Your task to perform on an android device: see sites visited before in the chrome app Image 0: 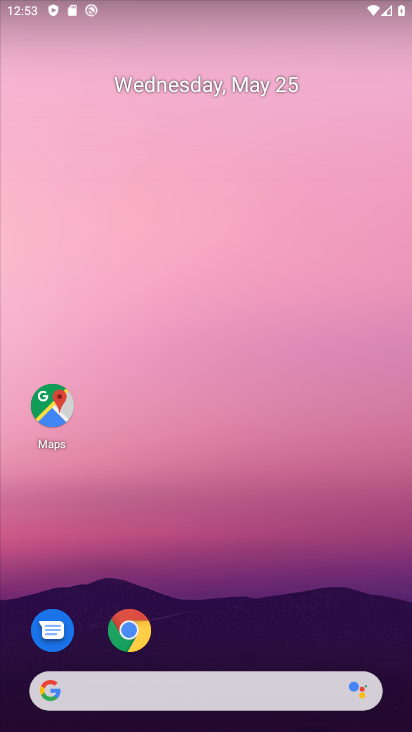
Step 0: click (117, 628)
Your task to perform on an android device: see sites visited before in the chrome app Image 1: 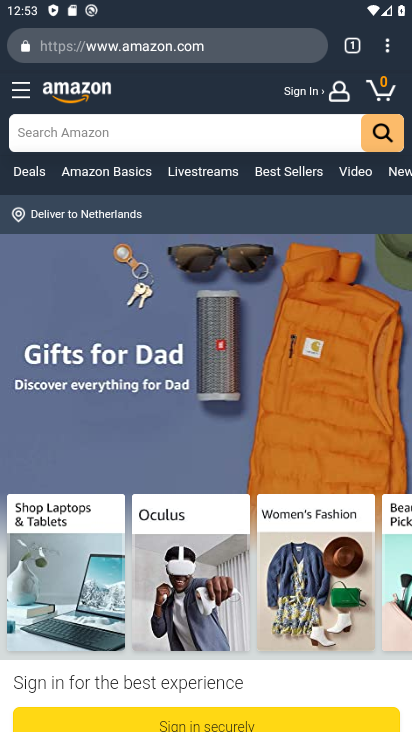
Step 1: click (390, 41)
Your task to perform on an android device: see sites visited before in the chrome app Image 2: 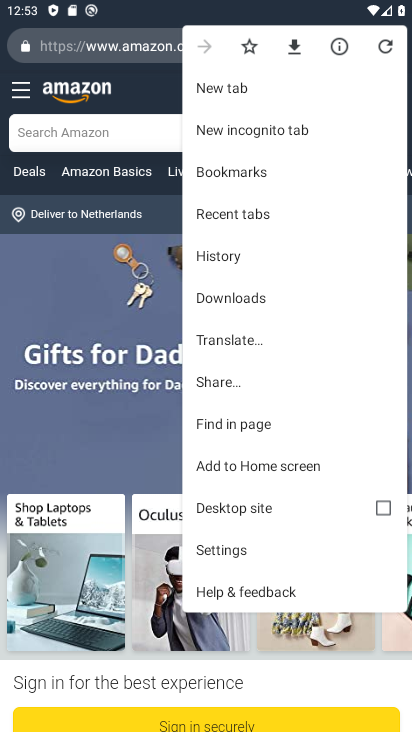
Step 2: click (241, 255)
Your task to perform on an android device: see sites visited before in the chrome app Image 3: 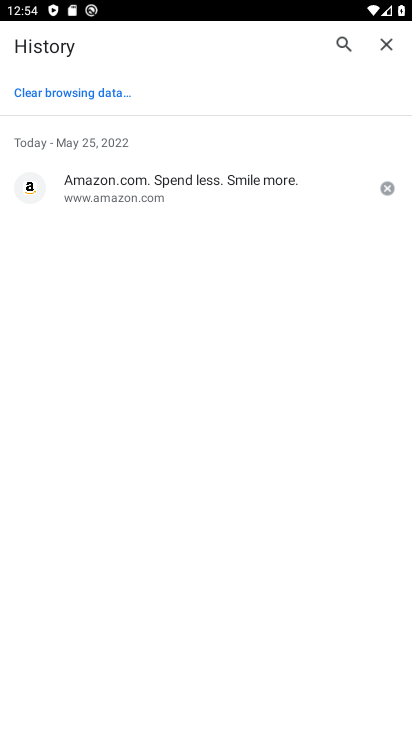
Step 3: task complete